Your task to perform on an android device: change text size in settings app Image 0: 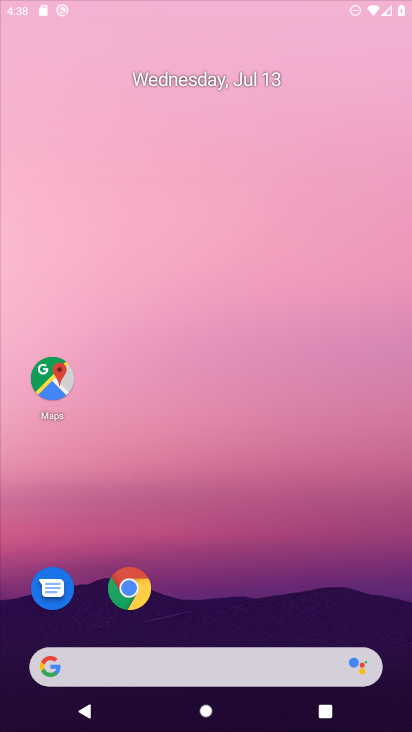
Step 0: drag from (245, 505) to (188, 139)
Your task to perform on an android device: change text size in settings app Image 1: 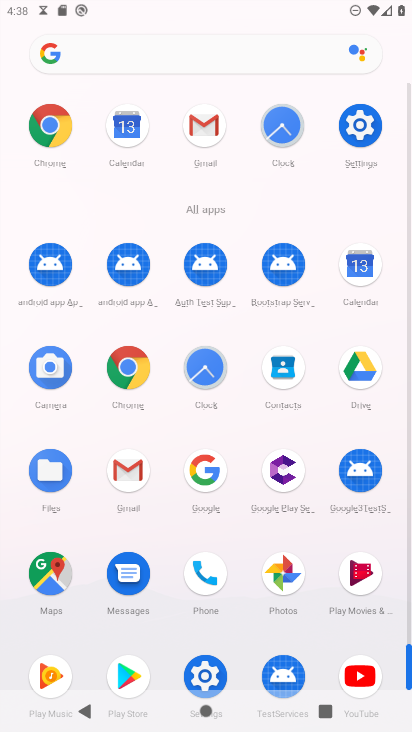
Step 1: click (203, 679)
Your task to perform on an android device: change text size in settings app Image 2: 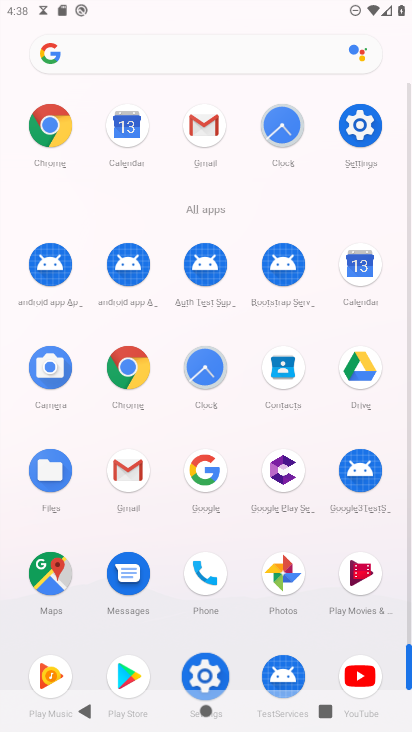
Step 2: click (203, 679)
Your task to perform on an android device: change text size in settings app Image 3: 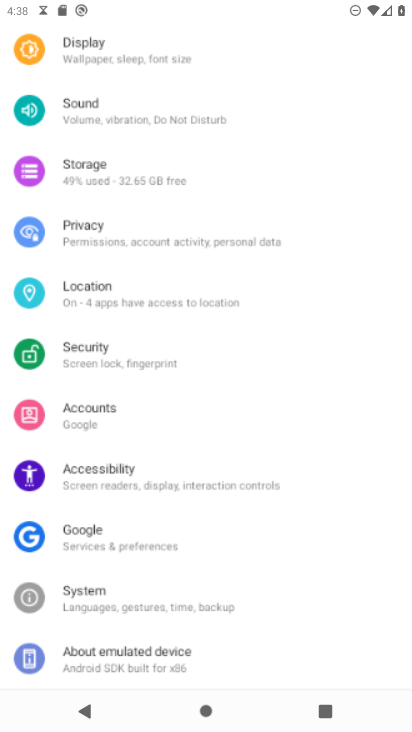
Step 3: click (203, 679)
Your task to perform on an android device: change text size in settings app Image 4: 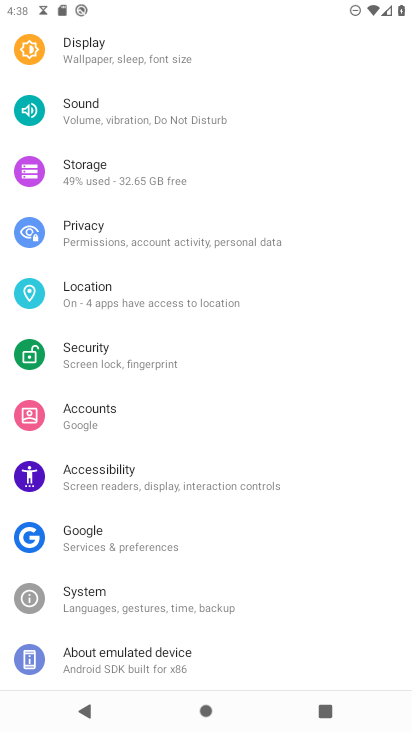
Step 4: click (203, 679)
Your task to perform on an android device: change text size in settings app Image 5: 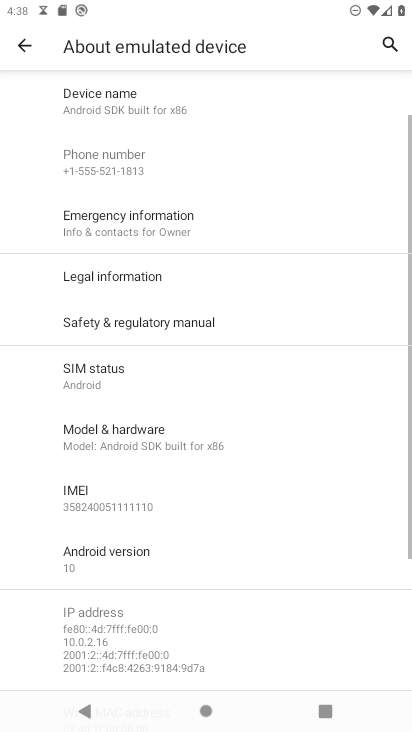
Step 5: click (10, 29)
Your task to perform on an android device: change text size in settings app Image 6: 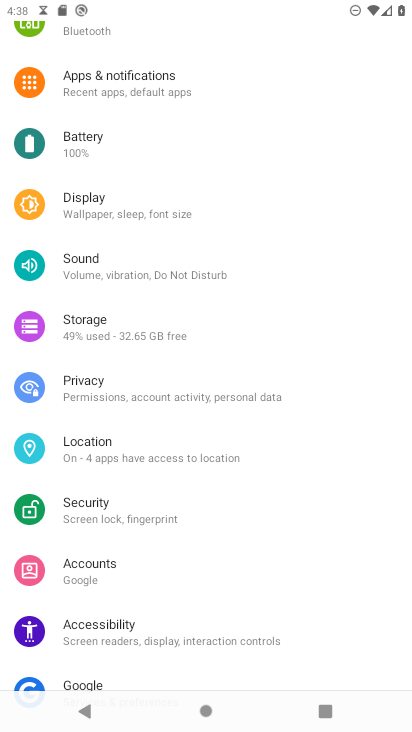
Step 6: click (93, 206)
Your task to perform on an android device: change text size in settings app Image 7: 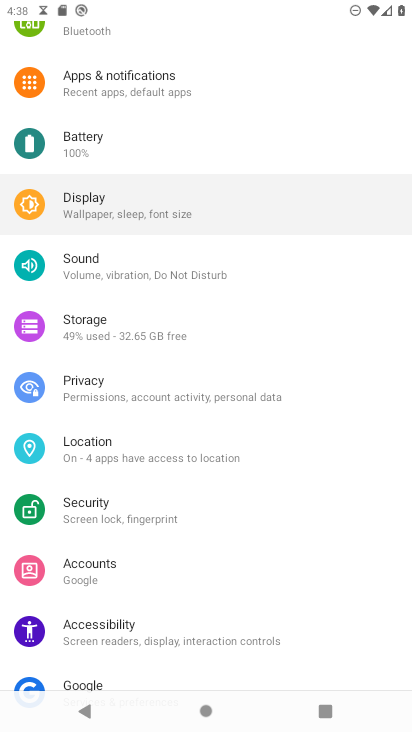
Step 7: click (94, 205)
Your task to perform on an android device: change text size in settings app Image 8: 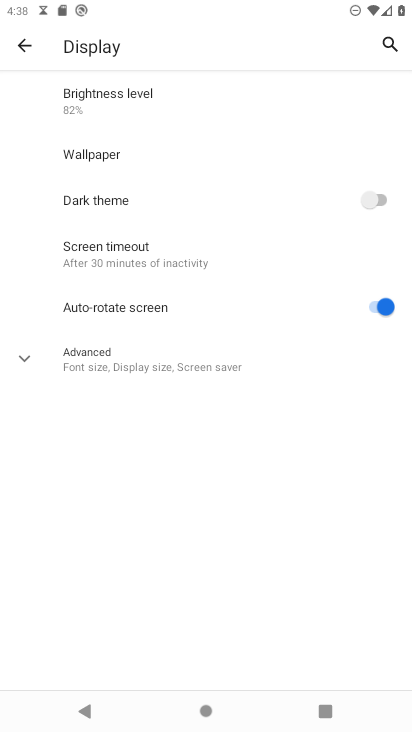
Step 8: click (84, 354)
Your task to perform on an android device: change text size in settings app Image 9: 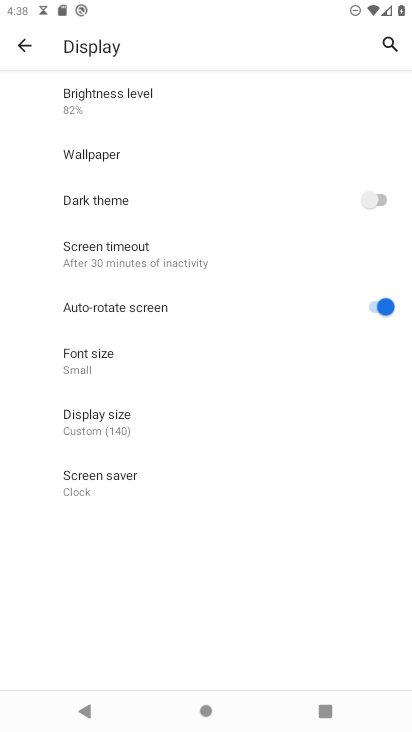
Step 9: click (74, 357)
Your task to perform on an android device: change text size in settings app Image 10: 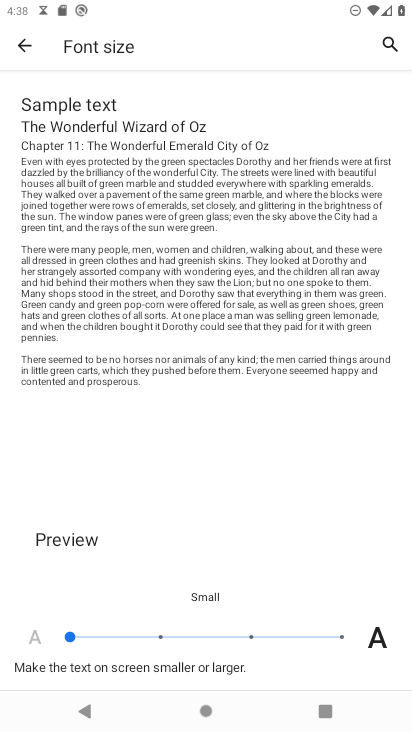
Step 10: click (247, 635)
Your task to perform on an android device: change text size in settings app Image 11: 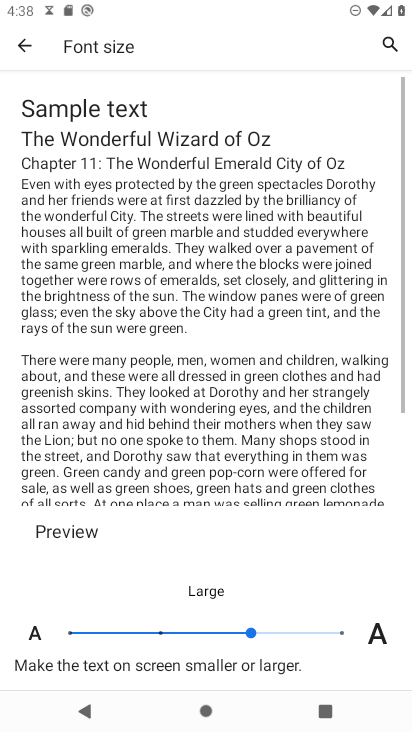
Step 11: click (353, 636)
Your task to perform on an android device: change text size in settings app Image 12: 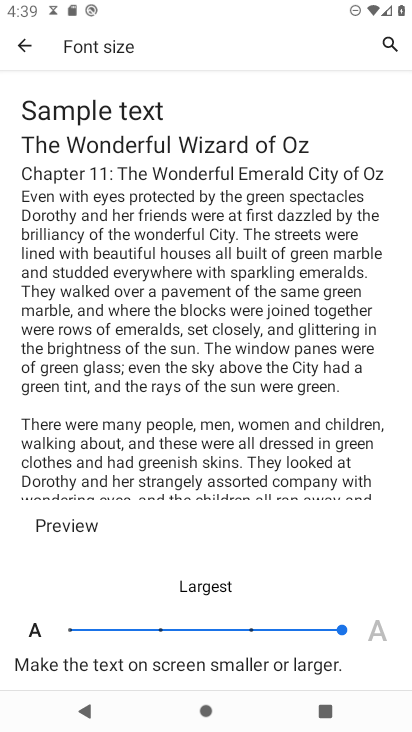
Step 12: task complete